Your task to perform on an android device: search for starred emails in the gmail app Image 0: 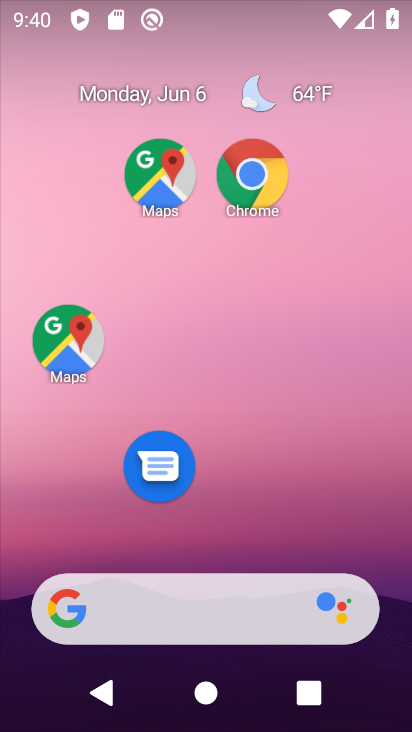
Step 0: click (146, 102)
Your task to perform on an android device: search for starred emails in the gmail app Image 1: 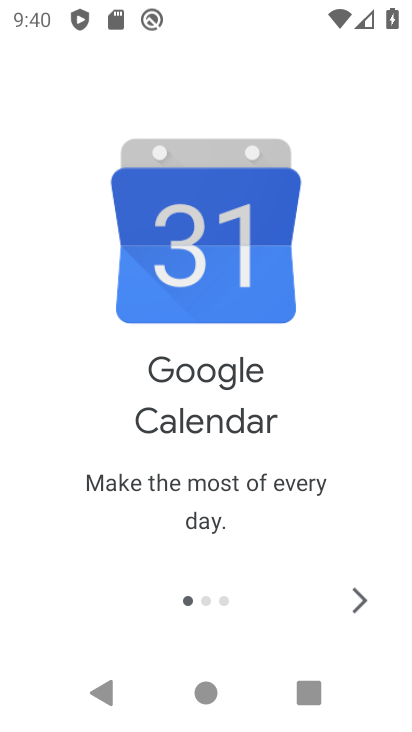
Step 1: press back button
Your task to perform on an android device: search for starred emails in the gmail app Image 2: 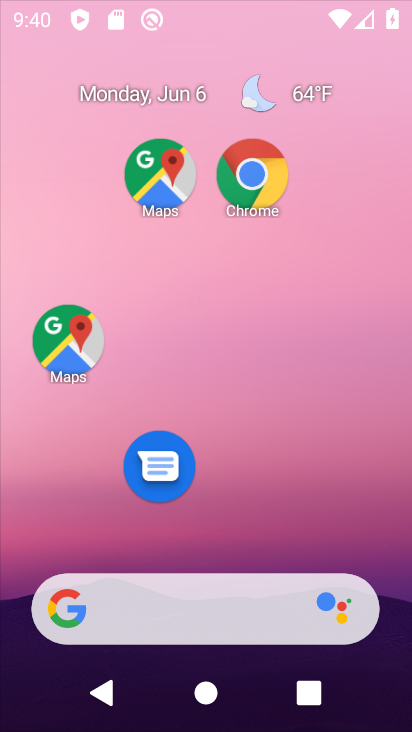
Step 2: click (375, 601)
Your task to perform on an android device: search for starred emails in the gmail app Image 3: 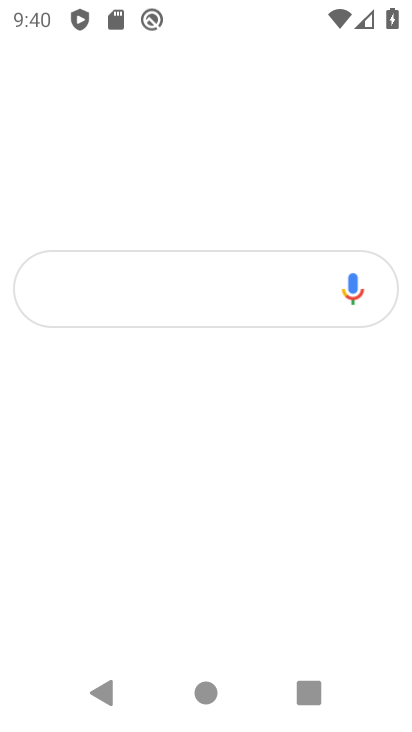
Step 3: drag from (228, 597) to (147, 89)
Your task to perform on an android device: search for starred emails in the gmail app Image 4: 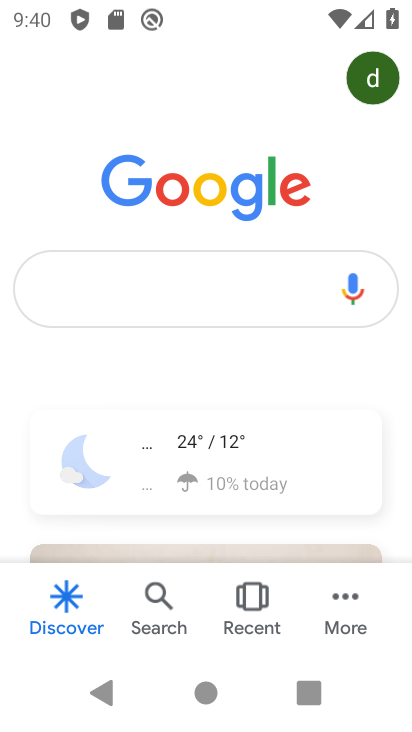
Step 4: press back button
Your task to perform on an android device: search for starred emails in the gmail app Image 5: 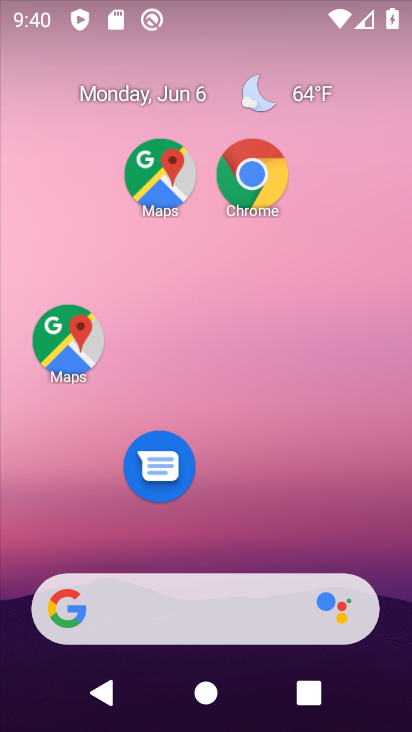
Step 5: press home button
Your task to perform on an android device: search for starred emails in the gmail app Image 6: 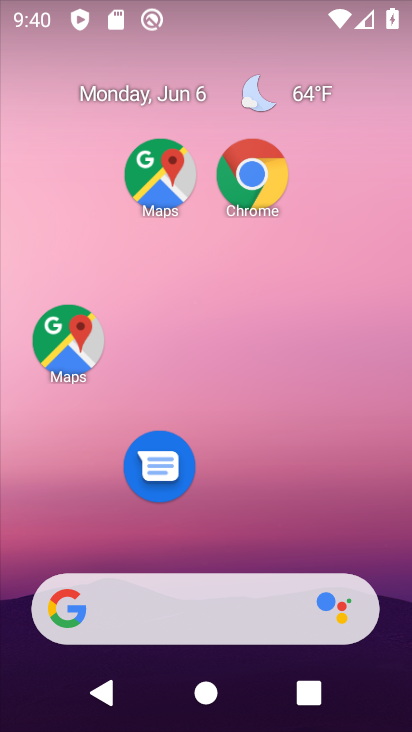
Step 6: drag from (254, 672) to (201, 162)
Your task to perform on an android device: search for starred emails in the gmail app Image 7: 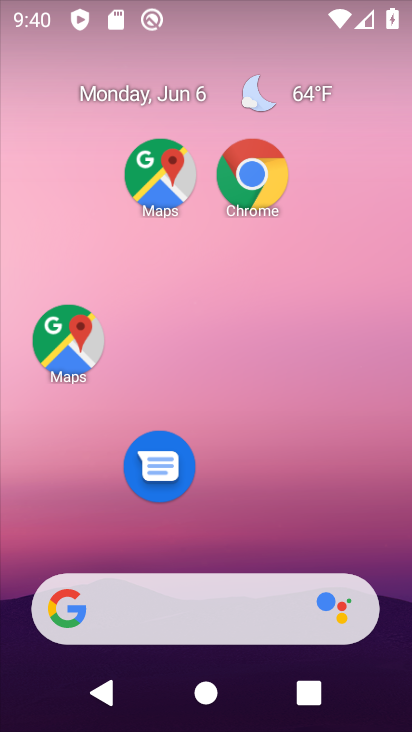
Step 7: drag from (276, 686) to (262, 46)
Your task to perform on an android device: search for starred emails in the gmail app Image 8: 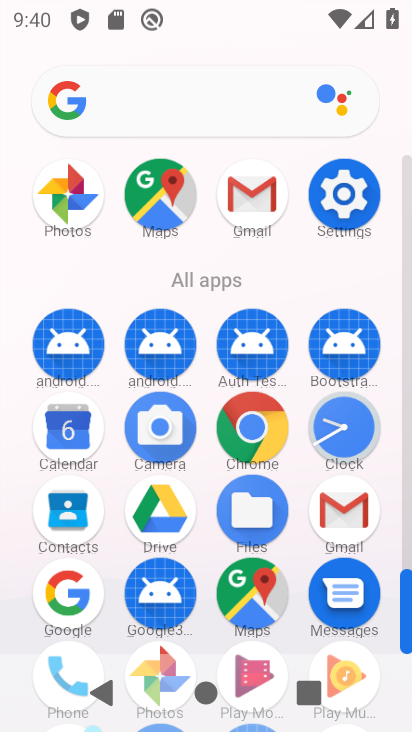
Step 8: click (330, 509)
Your task to perform on an android device: search for starred emails in the gmail app Image 9: 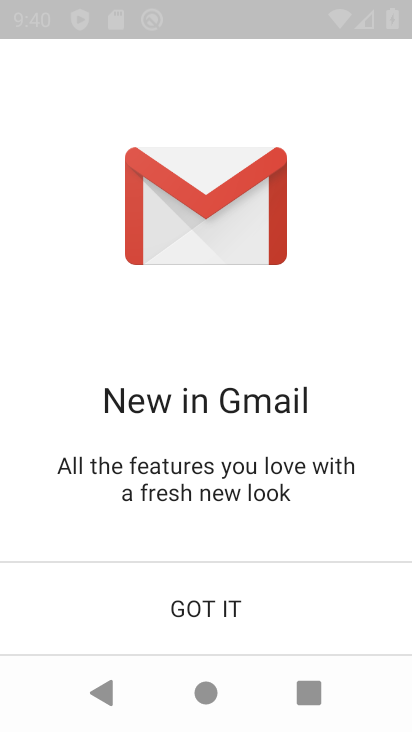
Step 9: press back button
Your task to perform on an android device: search for starred emails in the gmail app Image 10: 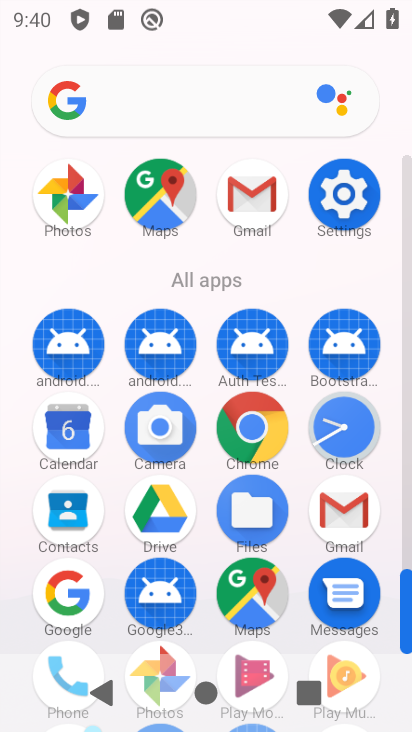
Step 10: click (338, 515)
Your task to perform on an android device: search for starred emails in the gmail app Image 11: 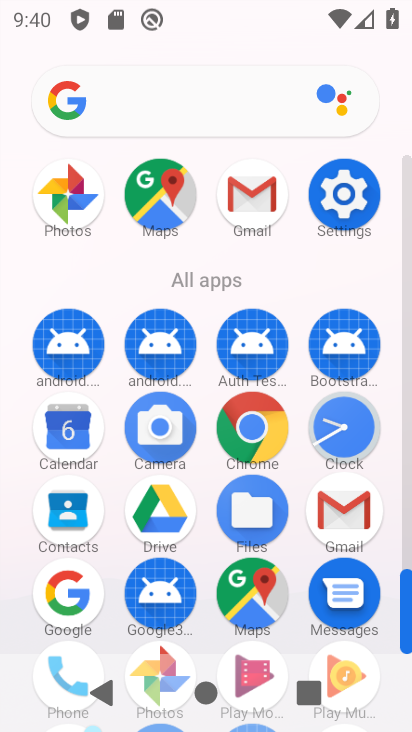
Step 11: click (339, 514)
Your task to perform on an android device: search for starred emails in the gmail app Image 12: 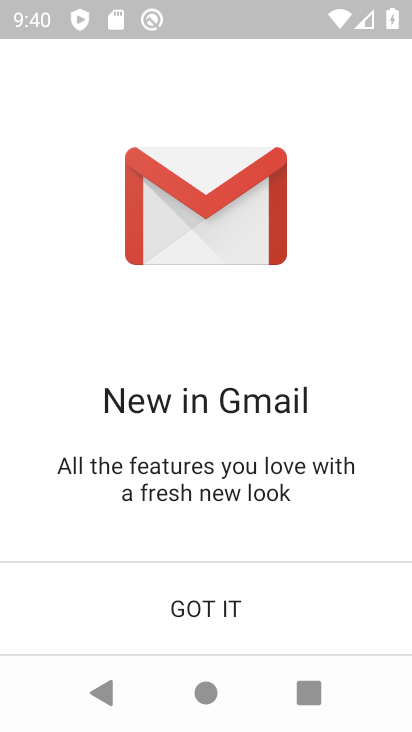
Step 12: click (222, 623)
Your task to perform on an android device: search for starred emails in the gmail app Image 13: 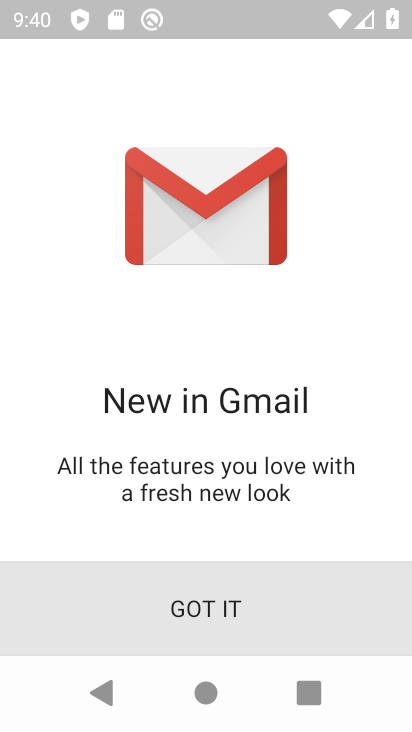
Step 13: click (221, 622)
Your task to perform on an android device: search for starred emails in the gmail app Image 14: 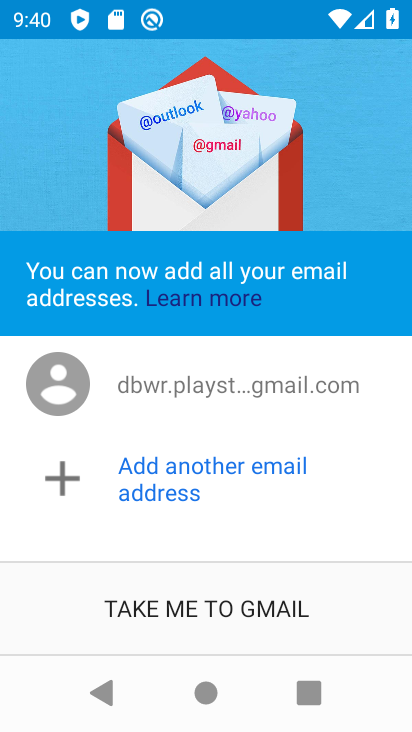
Step 14: click (215, 600)
Your task to perform on an android device: search for starred emails in the gmail app Image 15: 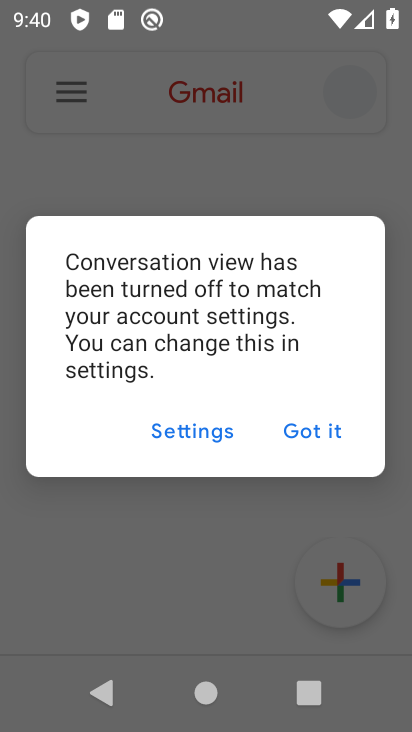
Step 15: click (311, 437)
Your task to perform on an android device: search for starred emails in the gmail app Image 16: 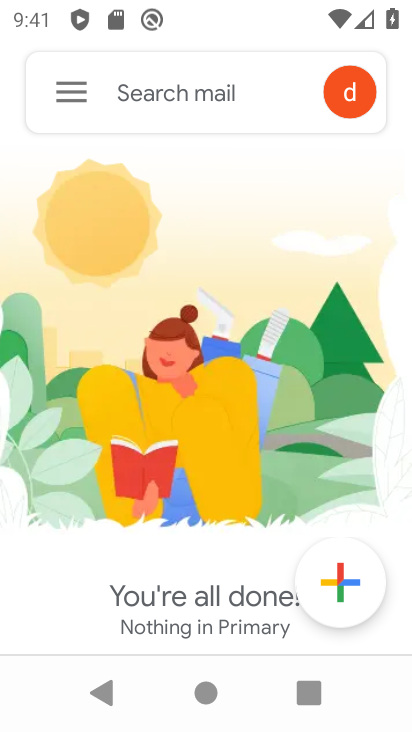
Step 16: click (58, 103)
Your task to perform on an android device: search for starred emails in the gmail app Image 17: 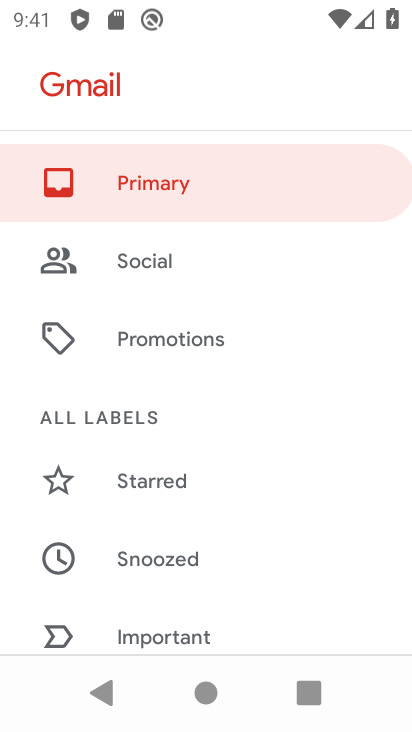
Step 17: click (147, 470)
Your task to perform on an android device: search for starred emails in the gmail app Image 18: 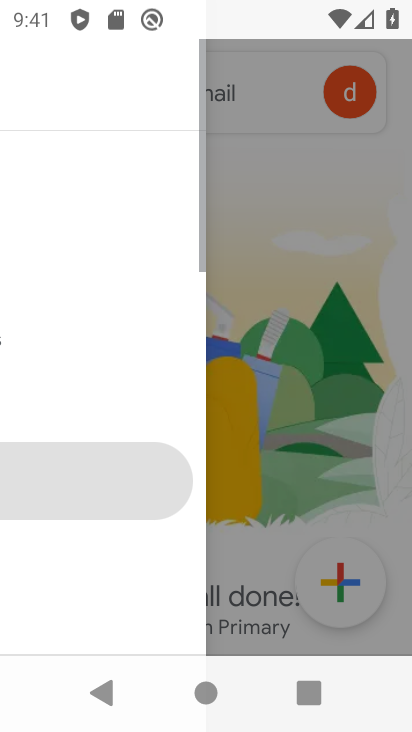
Step 18: click (147, 476)
Your task to perform on an android device: search for starred emails in the gmail app Image 19: 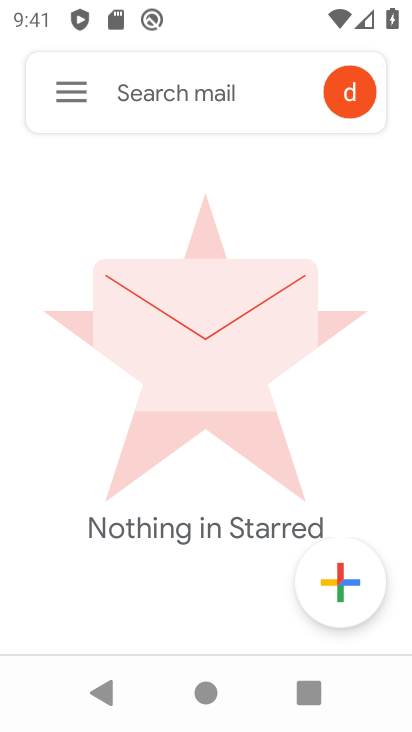
Step 19: task complete